Your task to perform on an android device: Open Google Maps and go to "Timeline" Image 0: 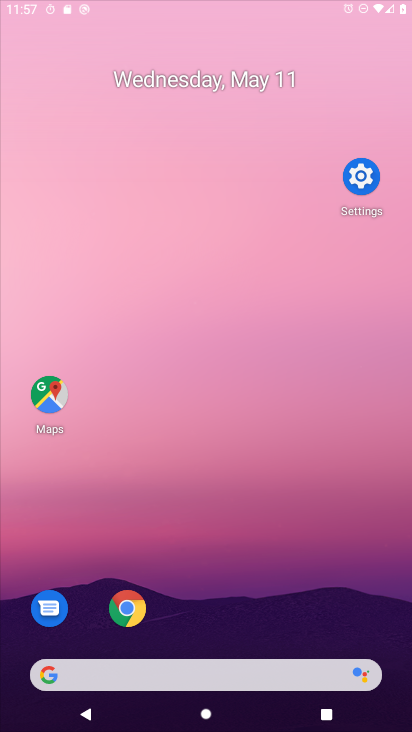
Step 0: click (127, 98)
Your task to perform on an android device: Open Google Maps and go to "Timeline" Image 1: 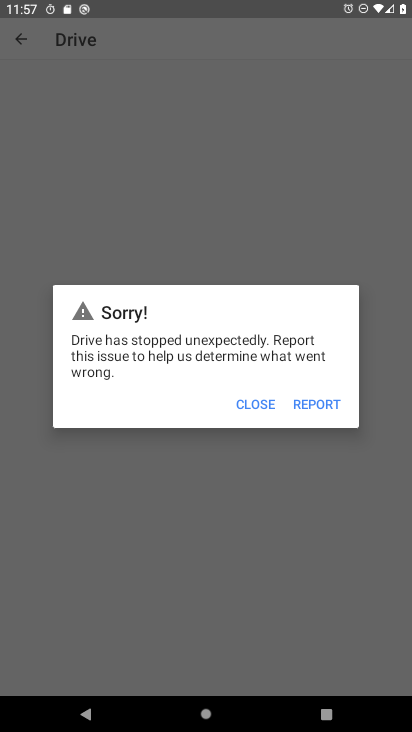
Step 1: press back button
Your task to perform on an android device: Open Google Maps and go to "Timeline" Image 2: 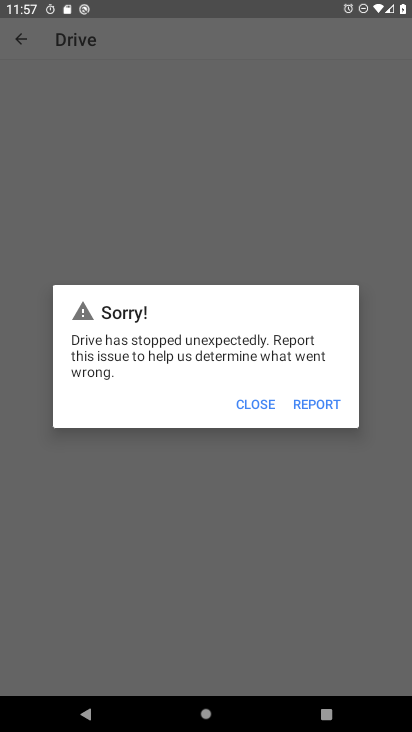
Step 2: click (243, 401)
Your task to perform on an android device: Open Google Maps and go to "Timeline" Image 3: 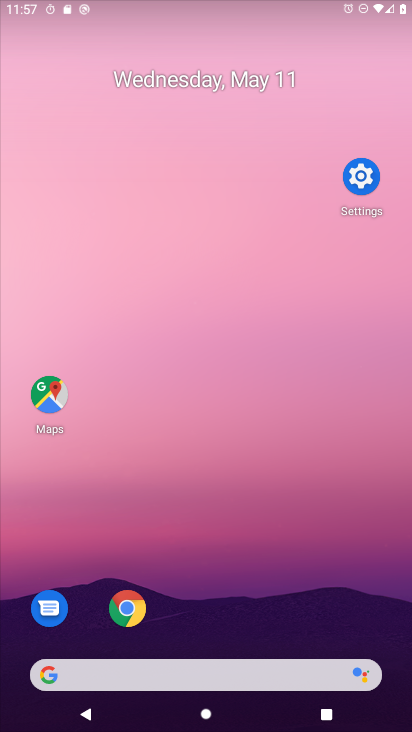
Step 3: drag from (317, 557) to (137, 152)
Your task to perform on an android device: Open Google Maps and go to "Timeline" Image 4: 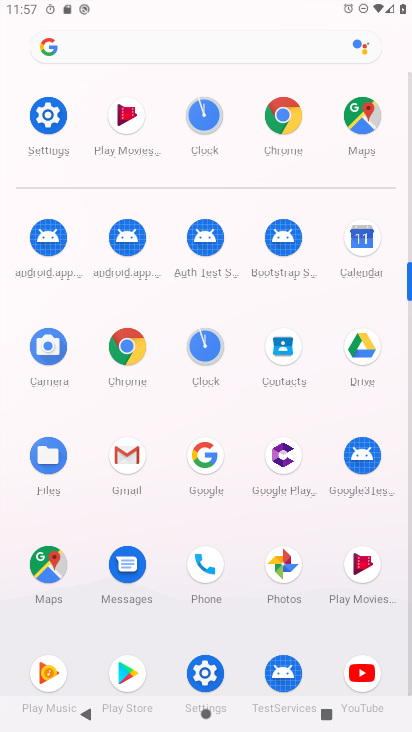
Step 4: click (349, 122)
Your task to perform on an android device: Open Google Maps and go to "Timeline" Image 5: 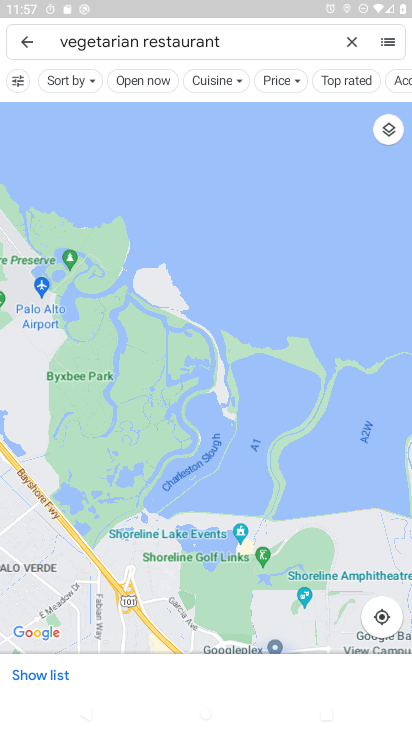
Step 5: click (24, 41)
Your task to perform on an android device: Open Google Maps and go to "Timeline" Image 6: 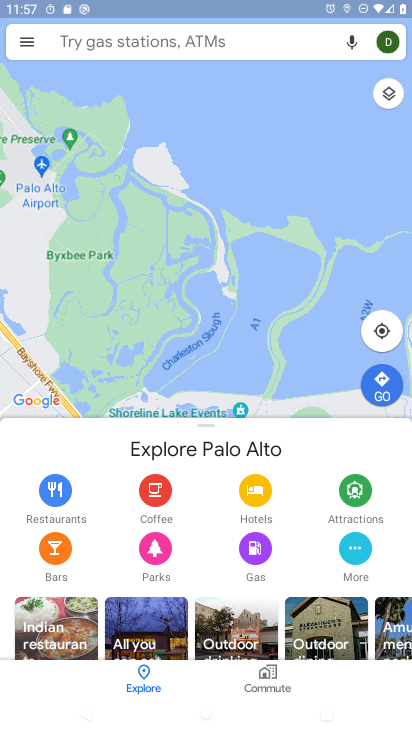
Step 6: click (24, 42)
Your task to perform on an android device: Open Google Maps and go to "Timeline" Image 7: 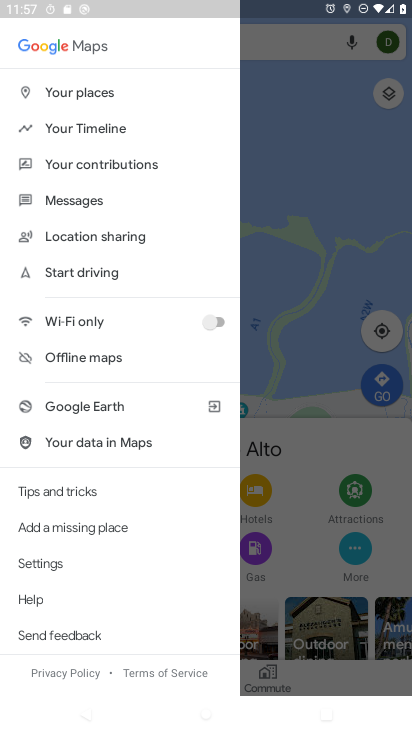
Step 7: click (88, 129)
Your task to perform on an android device: Open Google Maps and go to "Timeline" Image 8: 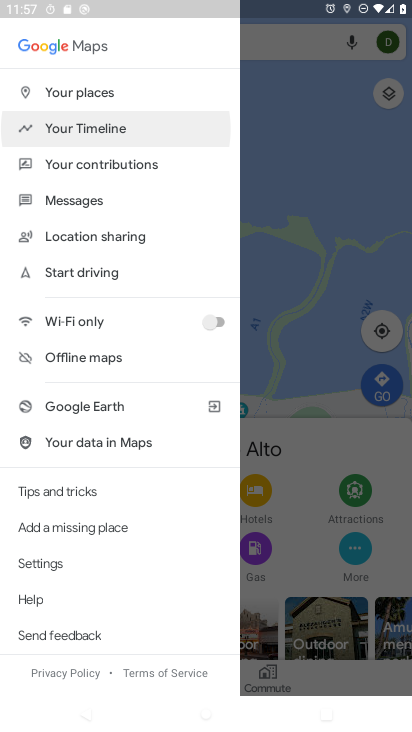
Step 8: click (88, 127)
Your task to perform on an android device: Open Google Maps and go to "Timeline" Image 9: 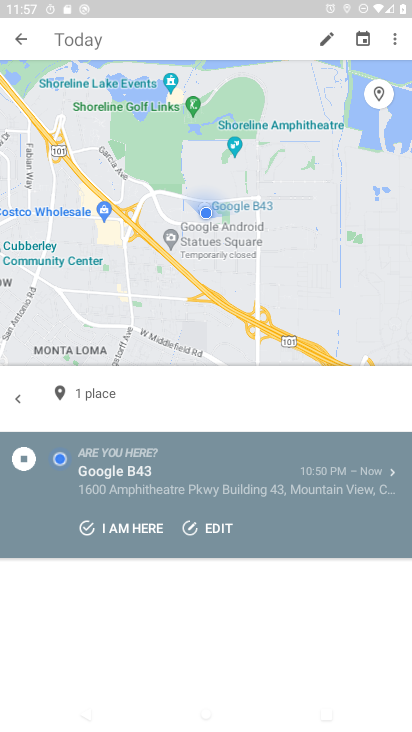
Step 9: task complete